Your task to perform on an android device: Open accessibility settings Image 0: 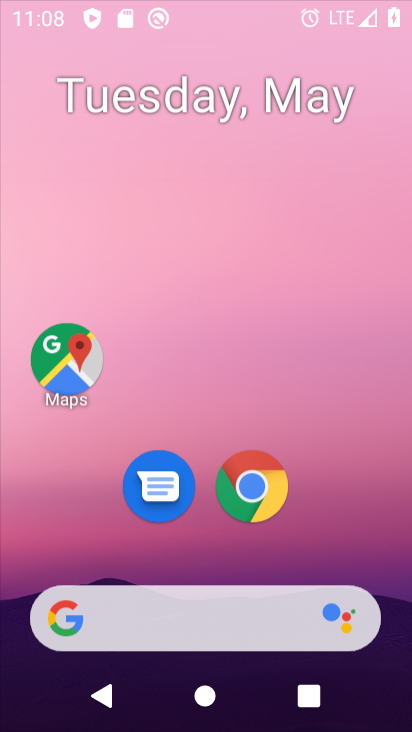
Step 0: click (193, 213)
Your task to perform on an android device: Open accessibility settings Image 1: 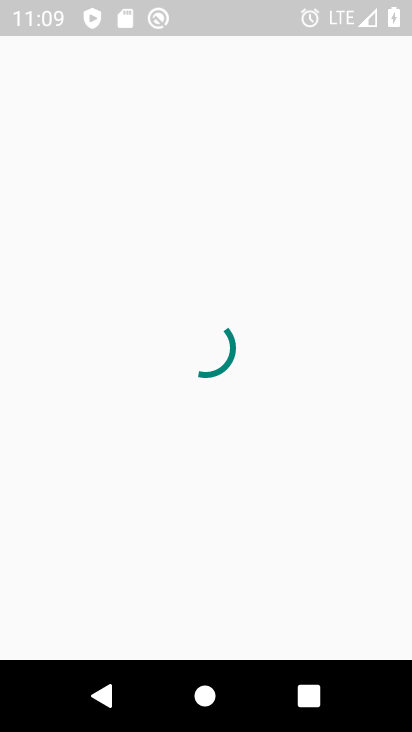
Step 1: press home button
Your task to perform on an android device: Open accessibility settings Image 2: 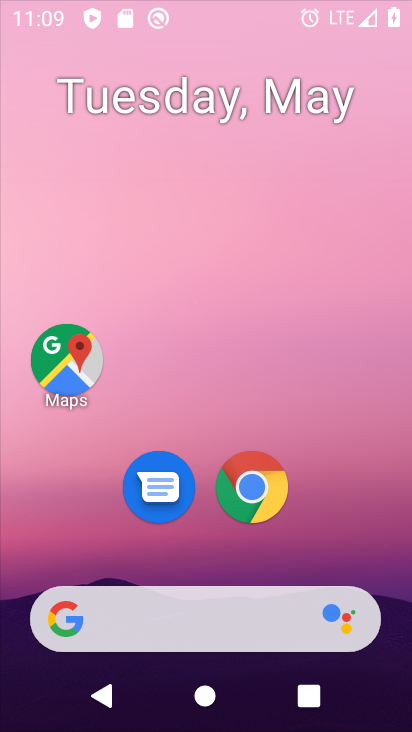
Step 2: drag from (199, 608) to (224, 153)
Your task to perform on an android device: Open accessibility settings Image 3: 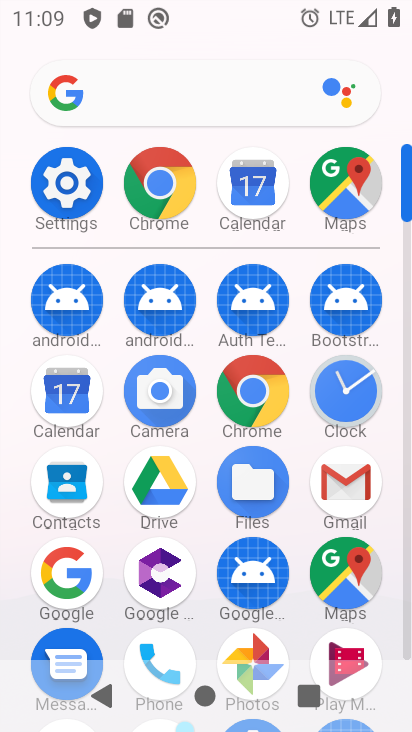
Step 3: click (48, 201)
Your task to perform on an android device: Open accessibility settings Image 4: 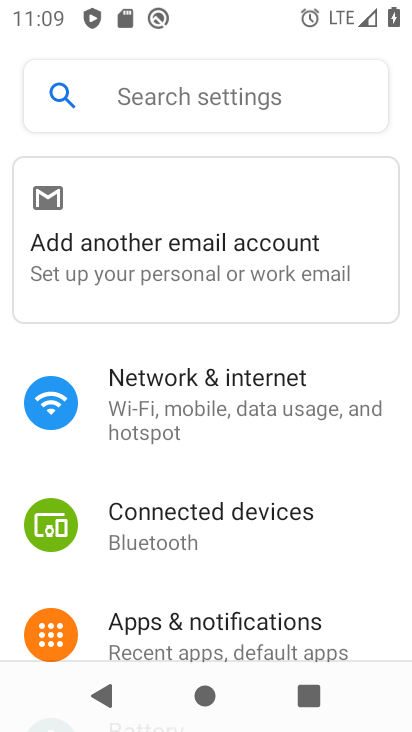
Step 4: drag from (247, 585) to (219, 117)
Your task to perform on an android device: Open accessibility settings Image 5: 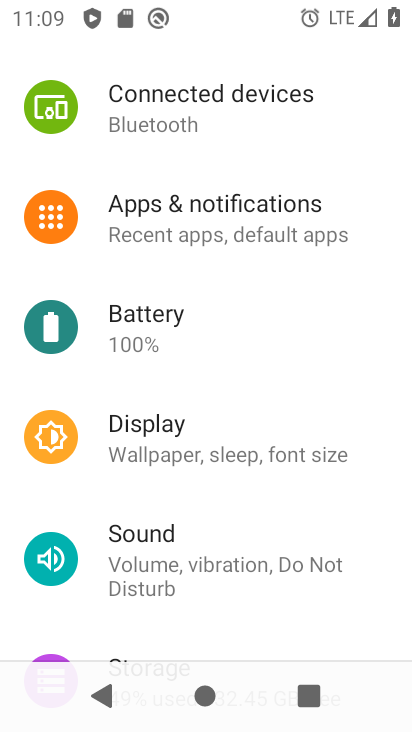
Step 5: drag from (198, 560) to (201, 162)
Your task to perform on an android device: Open accessibility settings Image 6: 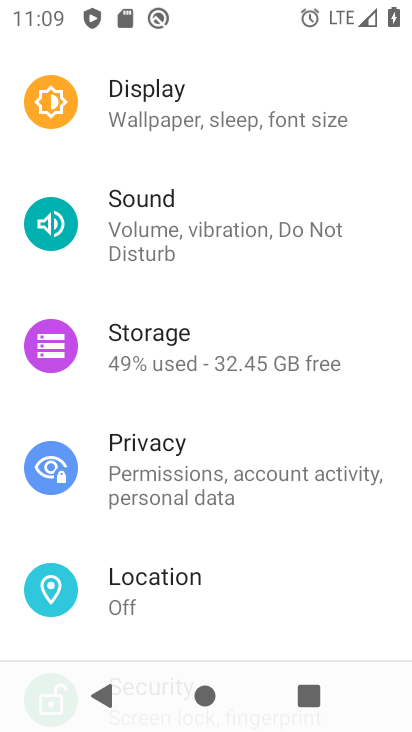
Step 6: drag from (258, 586) to (304, 124)
Your task to perform on an android device: Open accessibility settings Image 7: 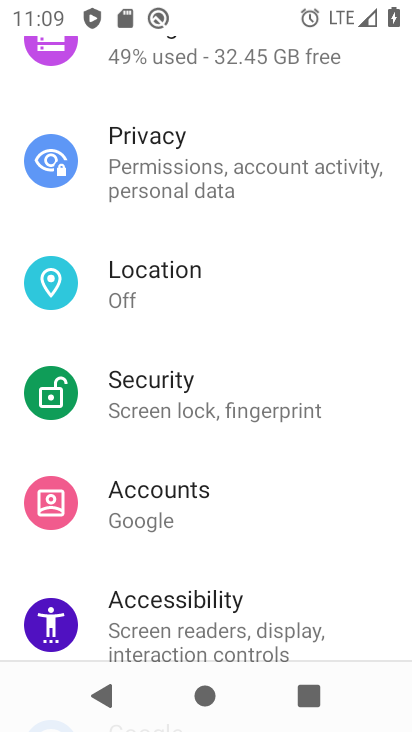
Step 7: click (197, 591)
Your task to perform on an android device: Open accessibility settings Image 8: 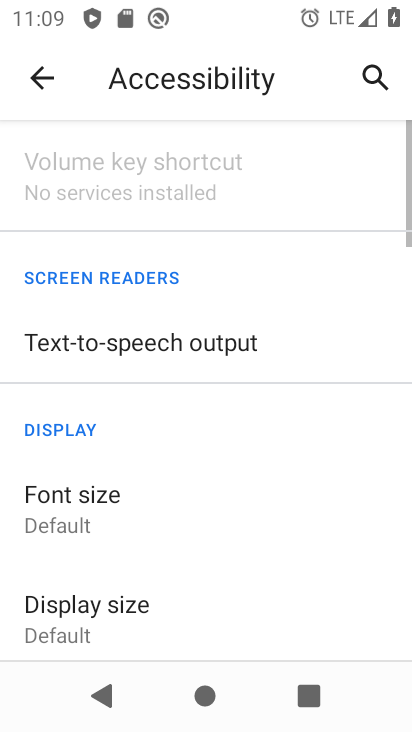
Step 8: task complete